Your task to perform on an android device: Find coffee shops on Maps Image 0: 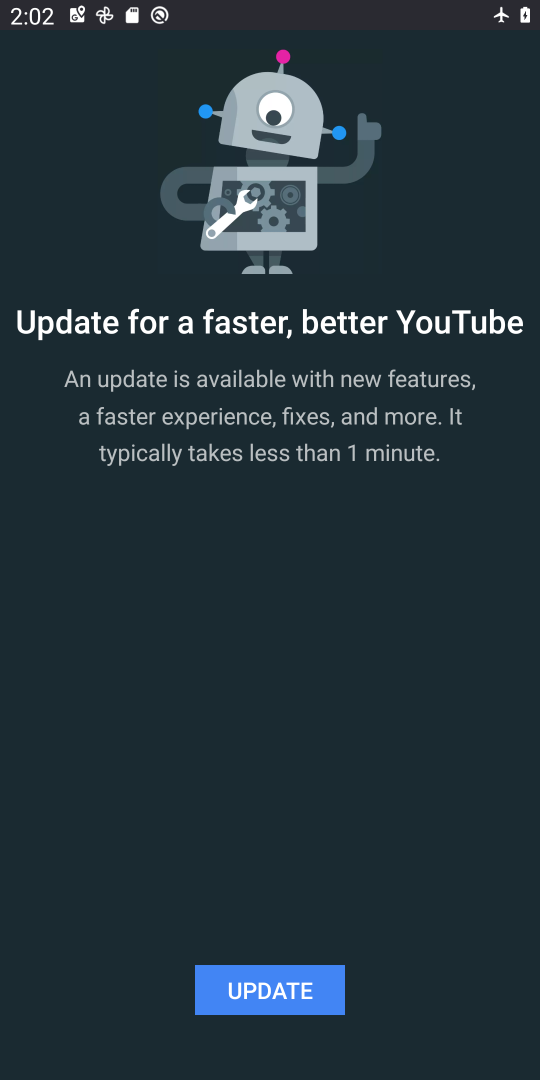
Step 0: press home button
Your task to perform on an android device: Find coffee shops on Maps Image 1: 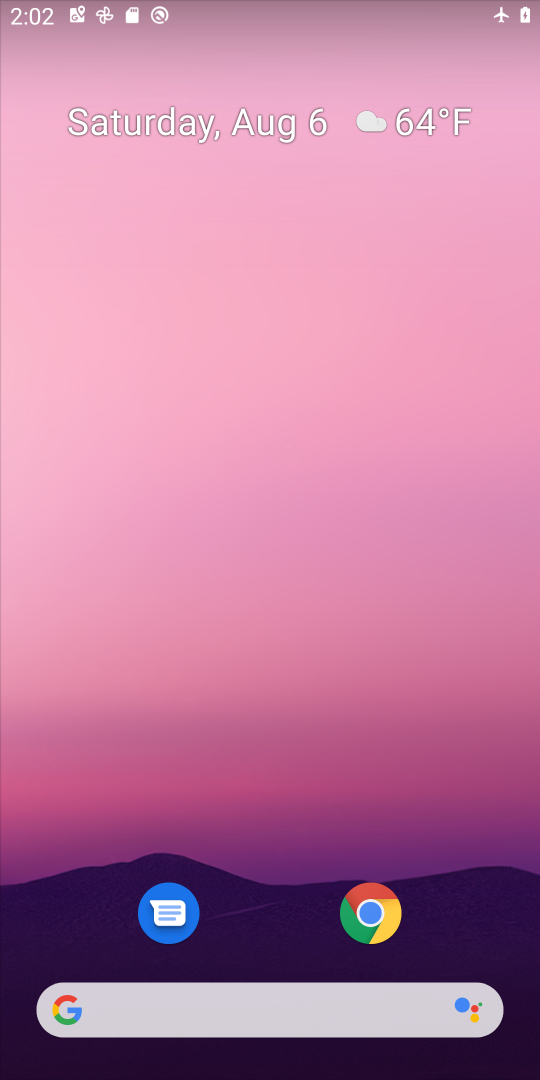
Step 1: drag from (449, 900) to (454, 287)
Your task to perform on an android device: Find coffee shops on Maps Image 2: 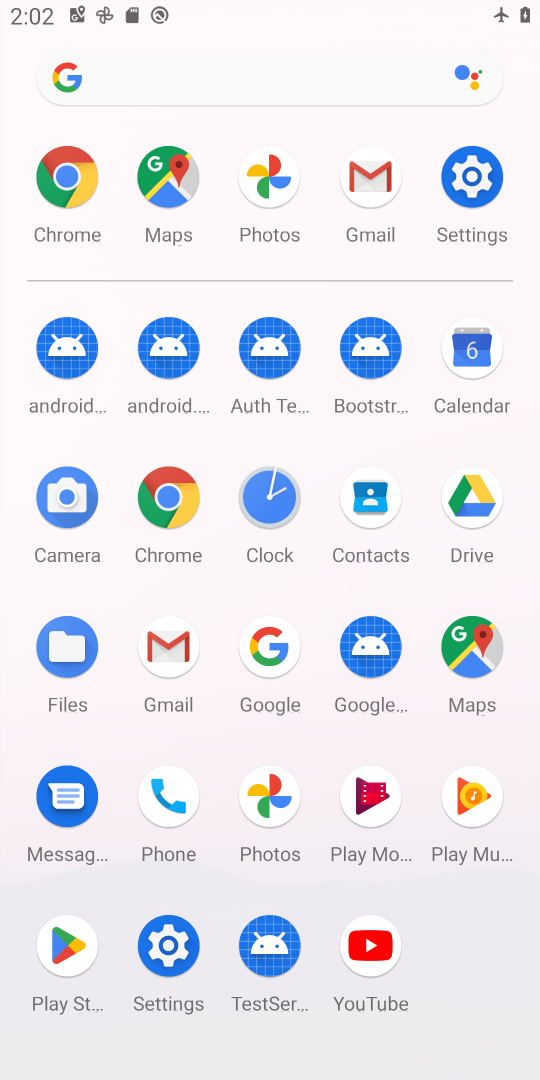
Step 2: click (460, 656)
Your task to perform on an android device: Find coffee shops on Maps Image 3: 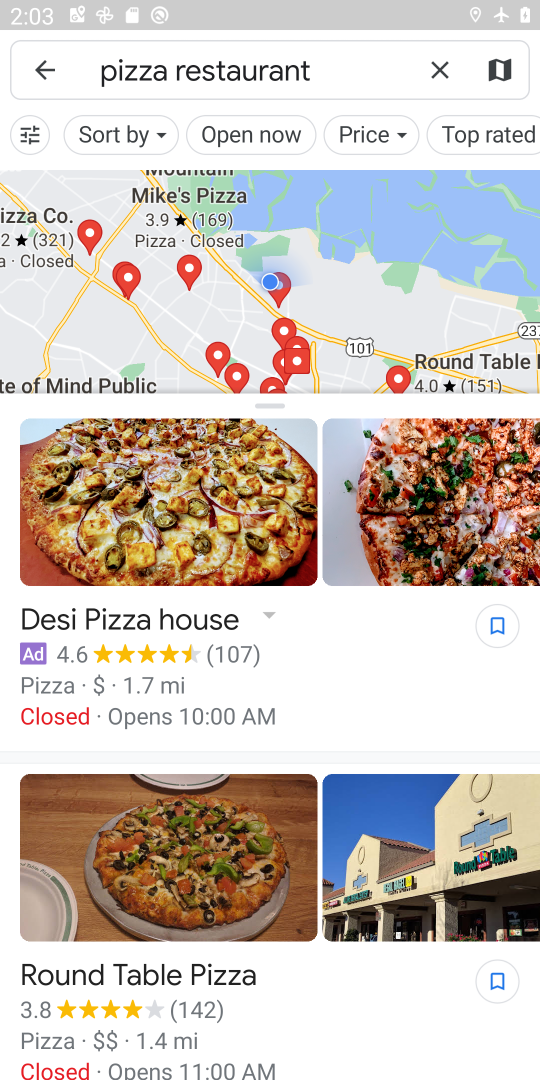
Step 3: click (434, 59)
Your task to perform on an android device: Find coffee shops on Maps Image 4: 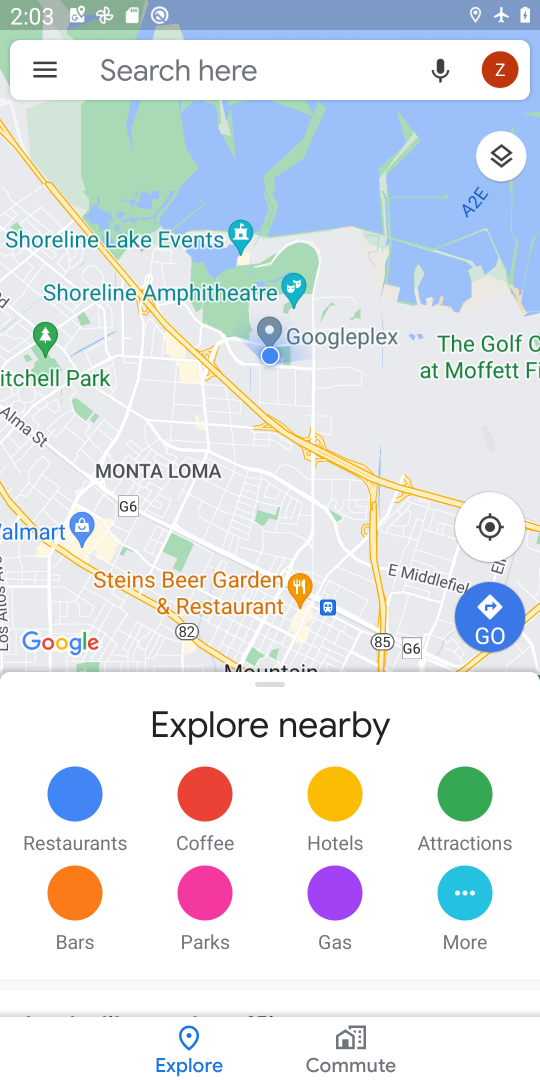
Step 4: click (314, 70)
Your task to perform on an android device: Find coffee shops on Maps Image 5: 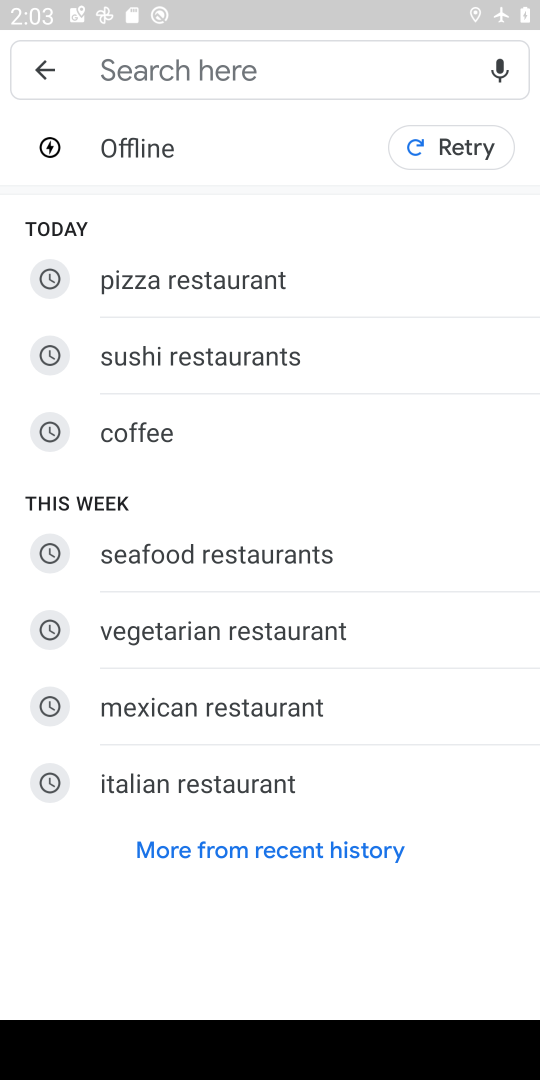
Step 5: type "coffee shops"
Your task to perform on an android device: Find coffee shops on Maps Image 6: 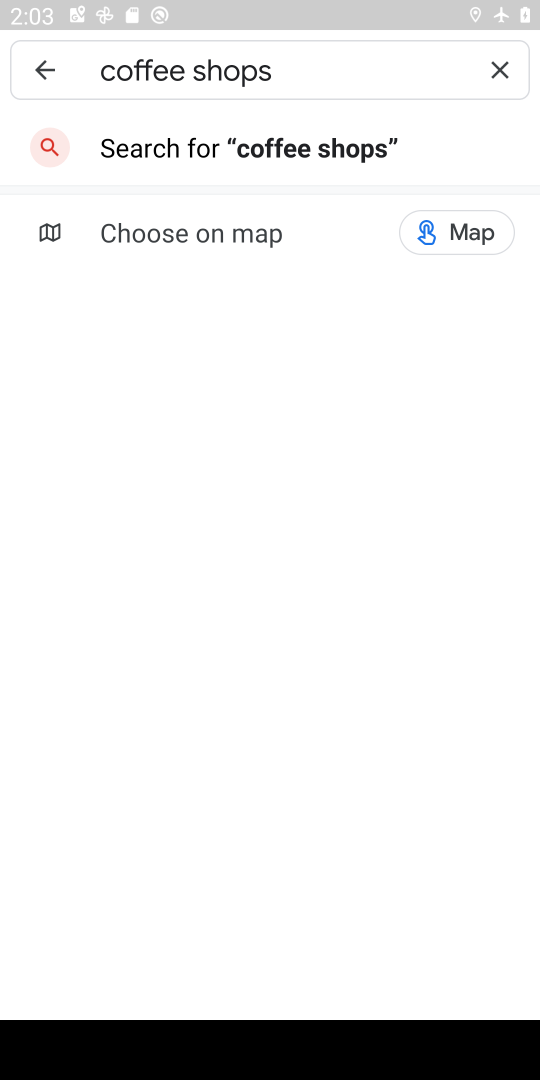
Step 6: task complete